Your task to perform on an android device: Open wifi settings Image 0: 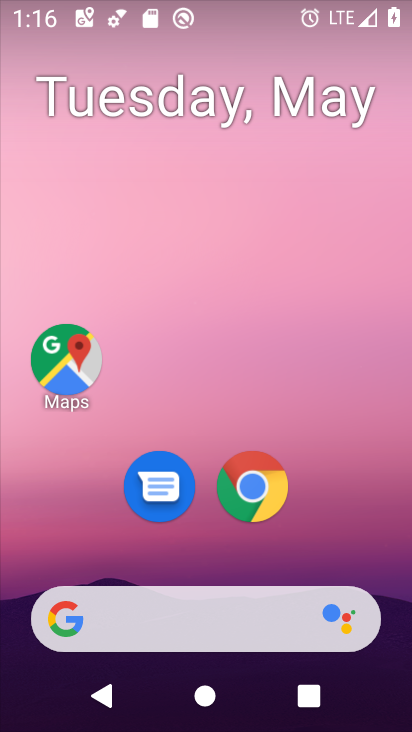
Step 0: drag from (124, 14) to (99, 356)
Your task to perform on an android device: Open wifi settings Image 1: 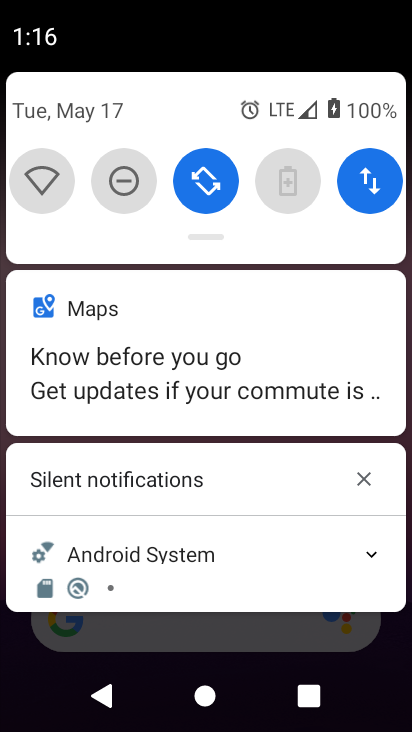
Step 1: click (50, 193)
Your task to perform on an android device: Open wifi settings Image 2: 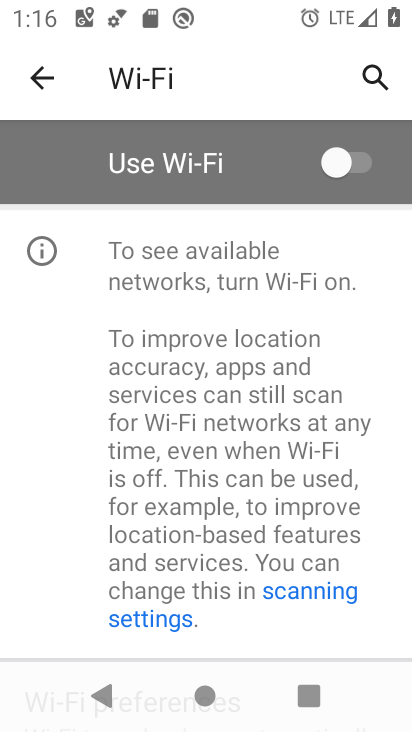
Step 2: click (339, 170)
Your task to perform on an android device: Open wifi settings Image 3: 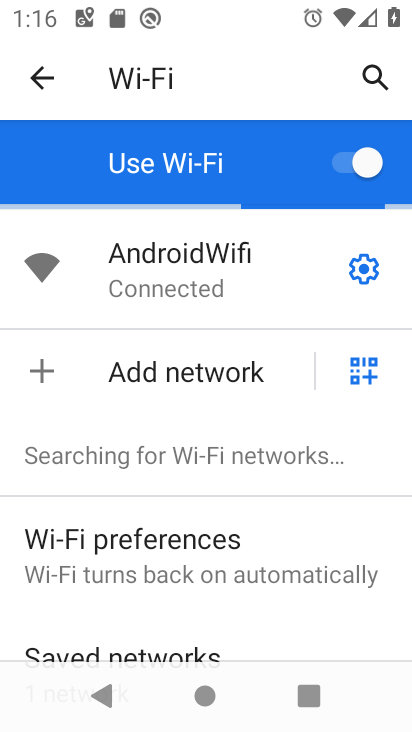
Step 3: click (366, 281)
Your task to perform on an android device: Open wifi settings Image 4: 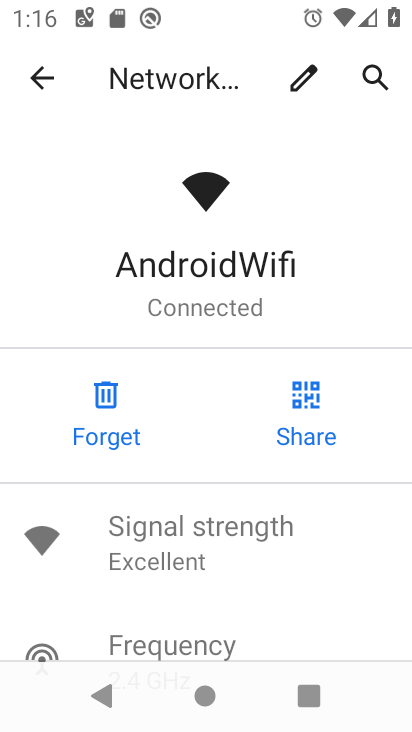
Step 4: task complete